Your task to perform on an android device: Open Chrome and go to settings Image 0: 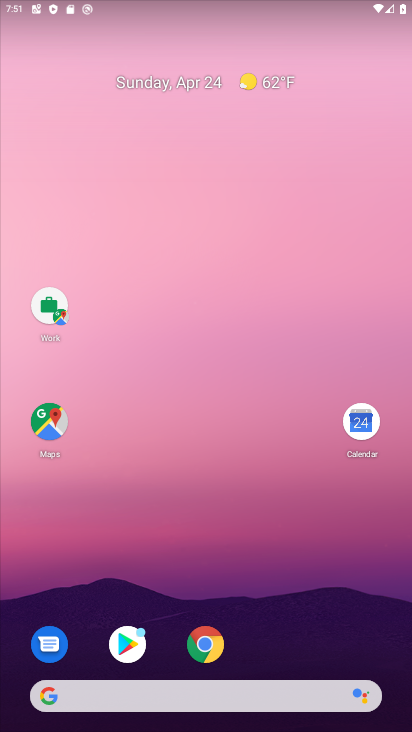
Step 0: drag from (263, 693) to (291, 234)
Your task to perform on an android device: Open Chrome and go to settings Image 1: 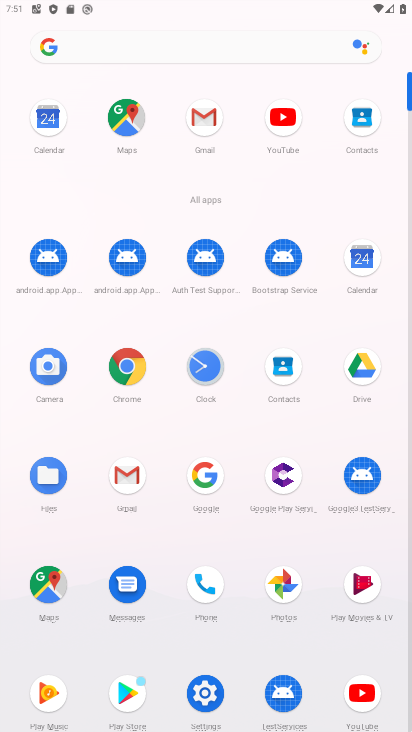
Step 1: click (127, 363)
Your task to perform on an android device: Open Chrome and go to settings Image 2: 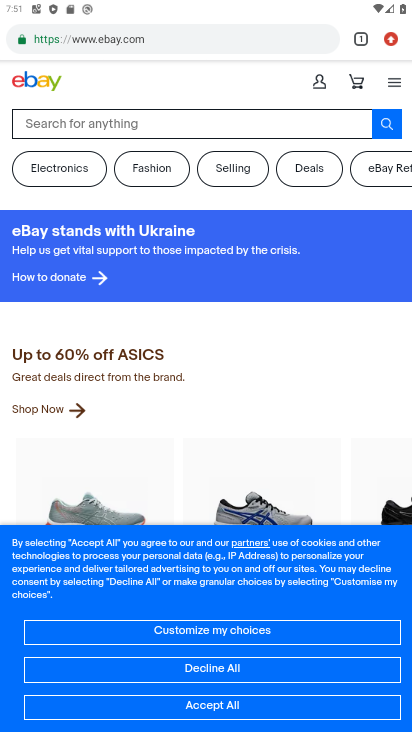
Step 2: press home button
Your task to perform on an android device: Open Chrome and go to settings Image 3: 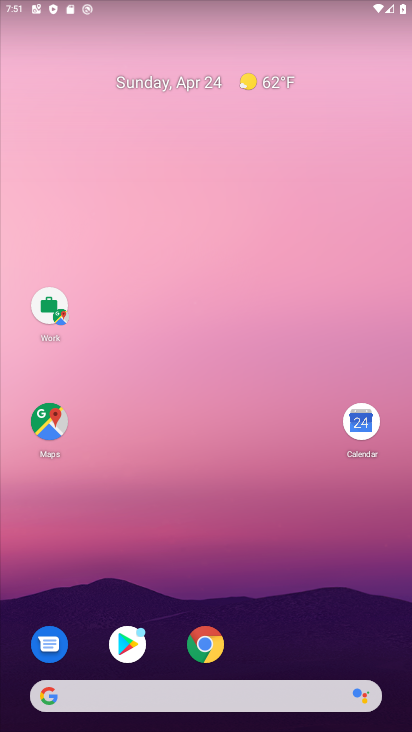
Step 3: press home button
Your task to perform on an android device: Open Chrome and go to settings Image 4: 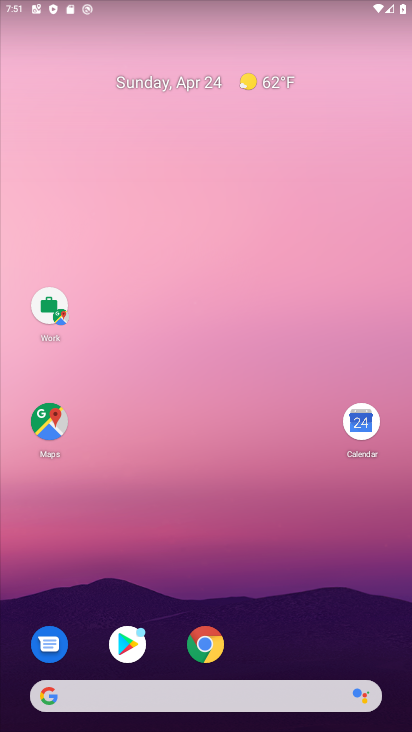
Step 4: press home button
Your task to perform on an android device: Open Chrome and go to settings Image 5: 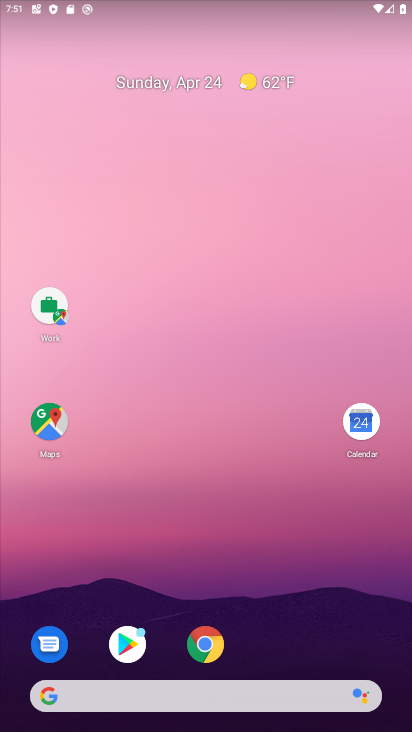
Step 5: press home button
Your task to perform on an android device: Open Chrome and go to settings Image 6: 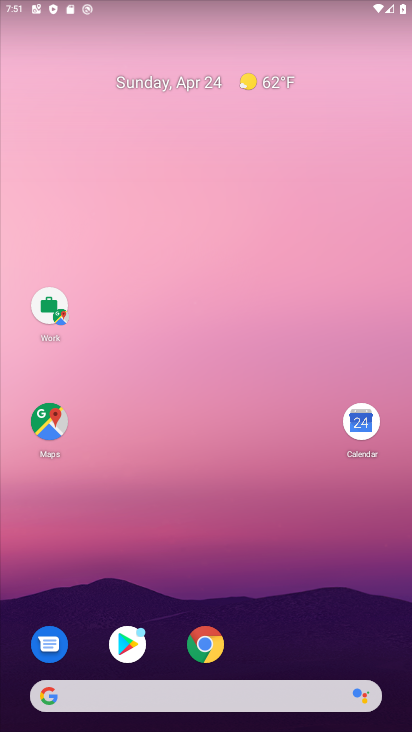
Step 6: drag from (236, 644) to (213, 66)
Your task to perform on an android device: Open Chrome and go to settings Image 7: 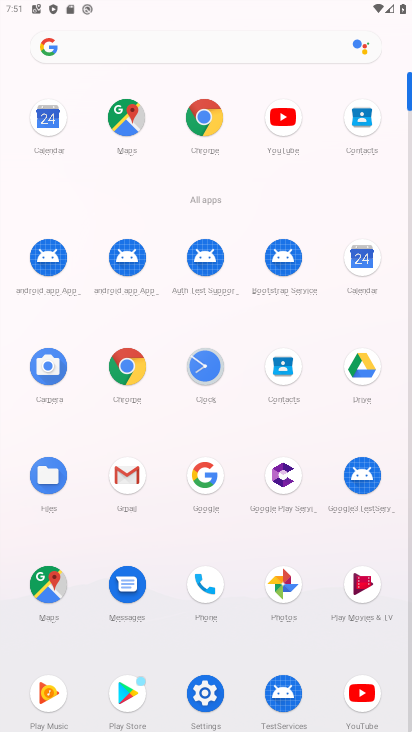
Step 7: click (201, 114)
Your task to perform on an android device: Open Chrome and go to settings Image 8: 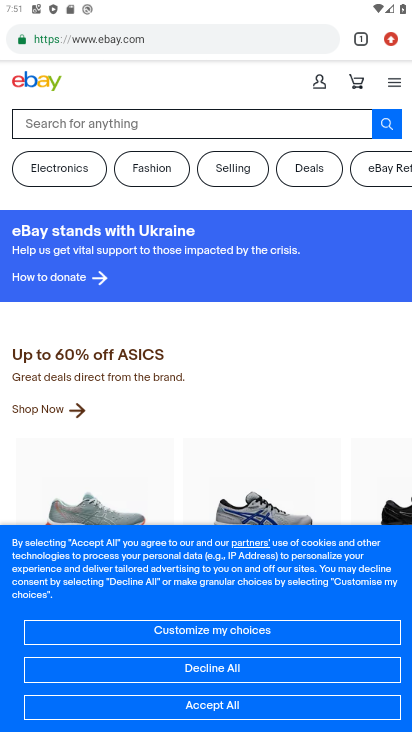
Step 8: drag from (394, 38) to (260, 516)
Your task to perform on an android device: Open Chrome and go to settings Image 9: 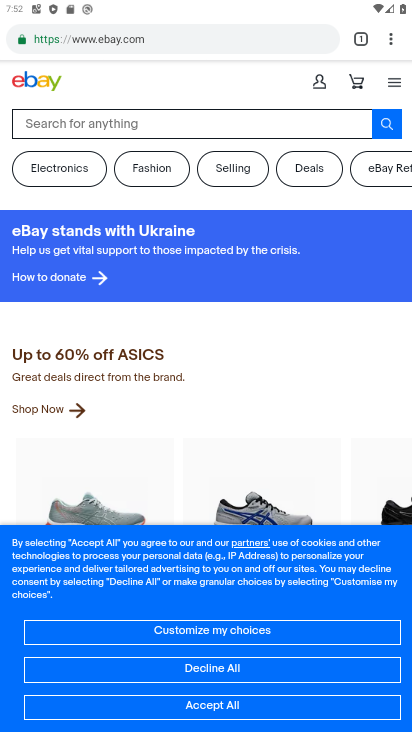
Step 9: click (242, 511)
Your task to perform on an android device: Open Chrome and go to settings Image 10: 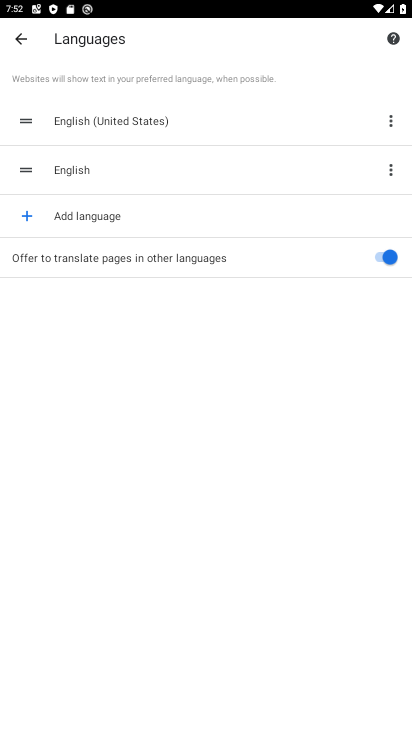
Step 10: click (10, 33)
Your task to perform on an android device: Open Chrome and go to settings Image 11: 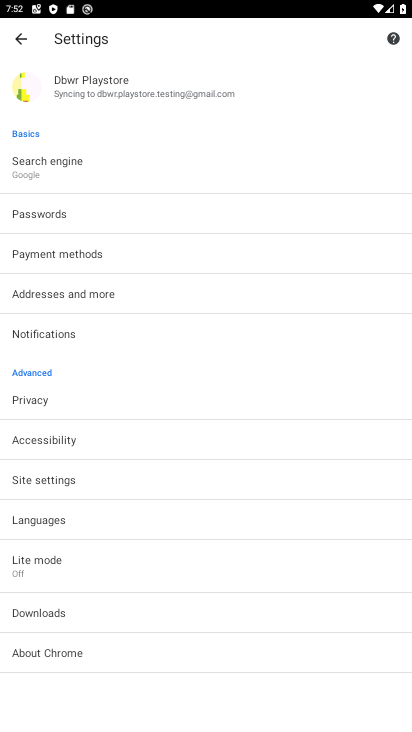
Step 11: task complete